Your task to perform on an android device: turn on airplane mode Image 0: 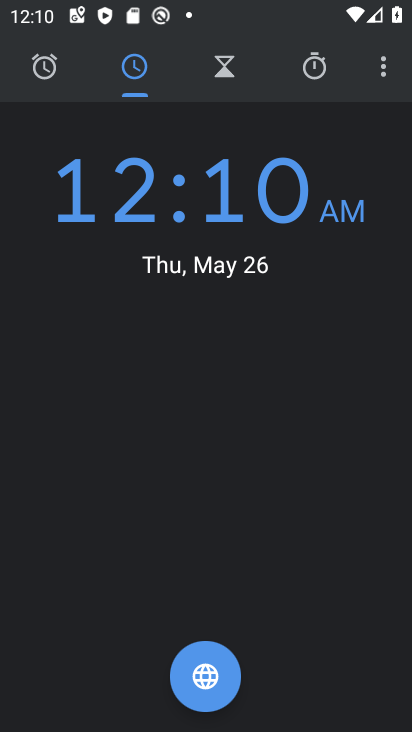
Step 0: drag from (222, 521) to (280, 224)
Your task to perform on an android device: turn on airplane mode Image 1: 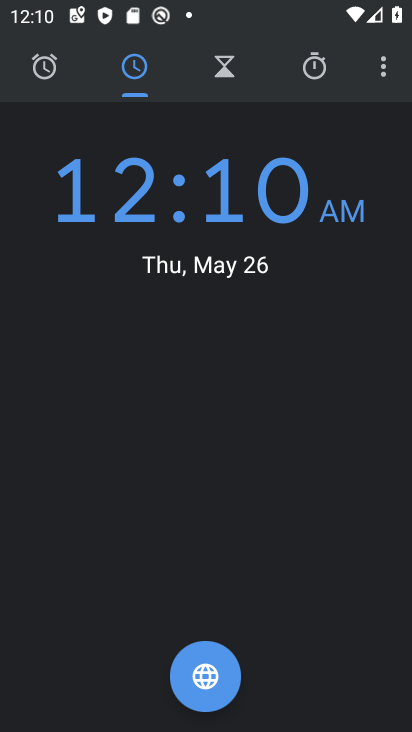
Step 1: press home button
Your task to perform on an android device: turn on airplane mode Image 2: 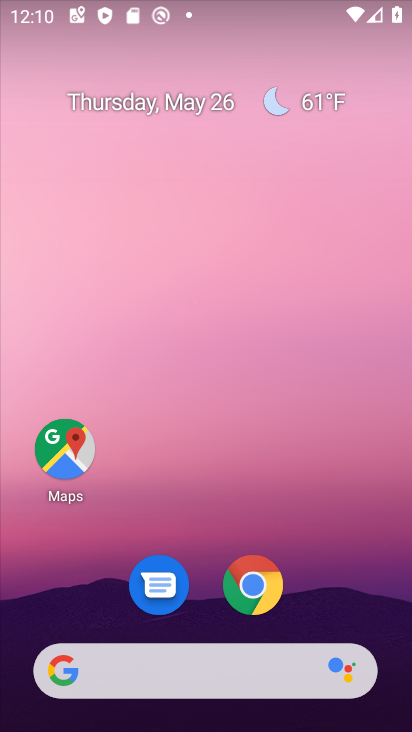
Step 2: drag from (274, 480) to (357, 68)
Your task to perform on an android device: turn on airplane mode Image 3: 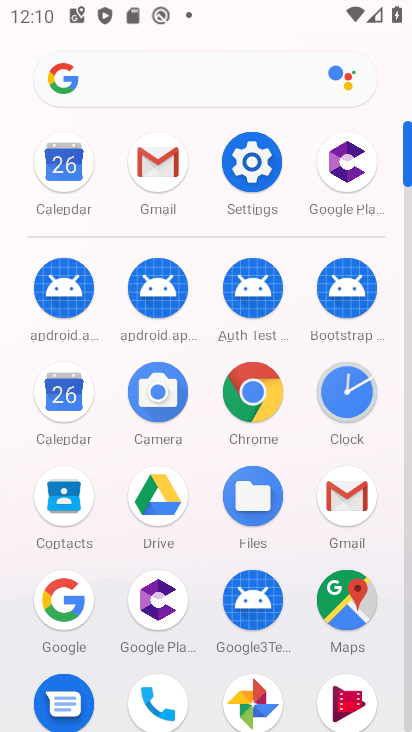
Step 3: click (256, 169)
Your task to perform on an android device: turn on airplane mode Image 4: 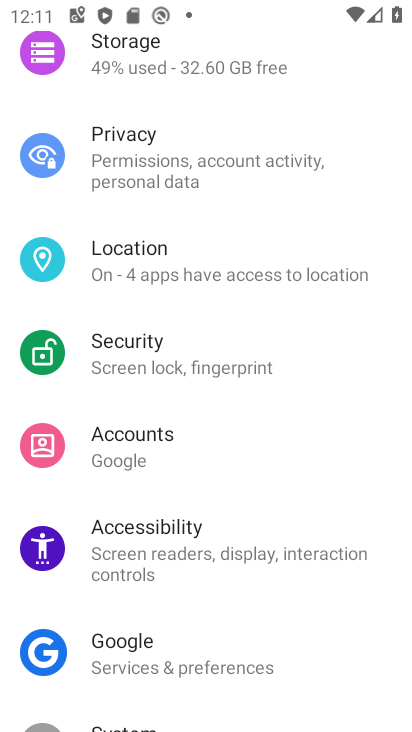
Step 4: drag from (237, 304) to (261, 561)
Your task to perform on an android device: turn on airplane mode Image 5: 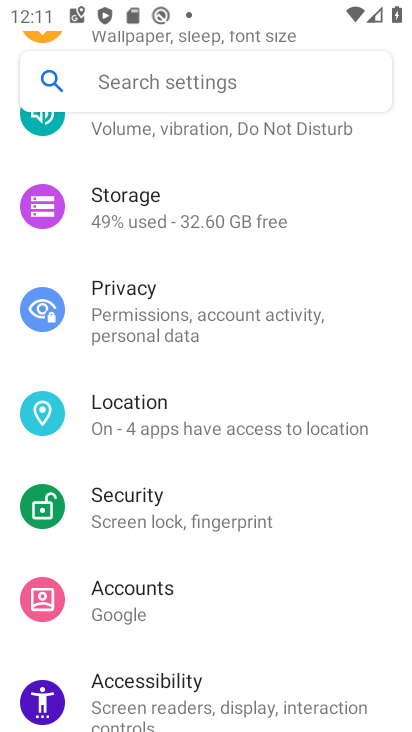
Step 5: drag from (224, 287) to (263, 657)
Your task to perform on an android device: turn on airplane mode Image 6: 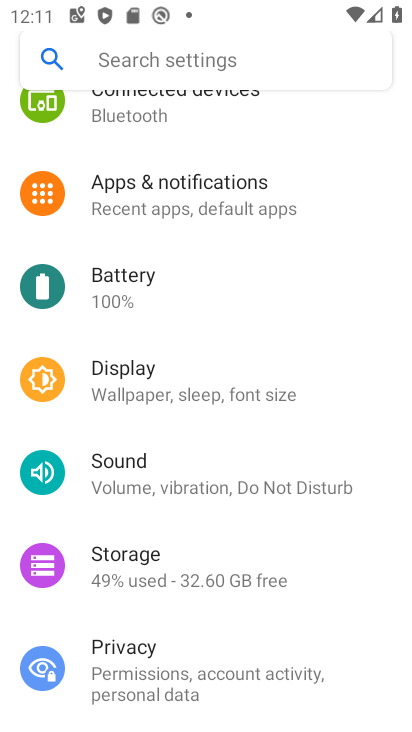
Step 6: drag from (236, 263) to (255, 605)
Your task to perform on an android device: turn on airplane mode Image 7: 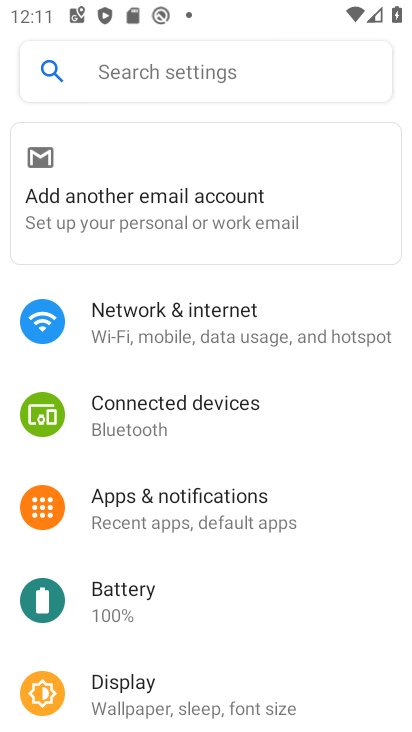
Step 7: click (239, 337)
Your task to perform on an android device: turn on airplane mode Image 8: 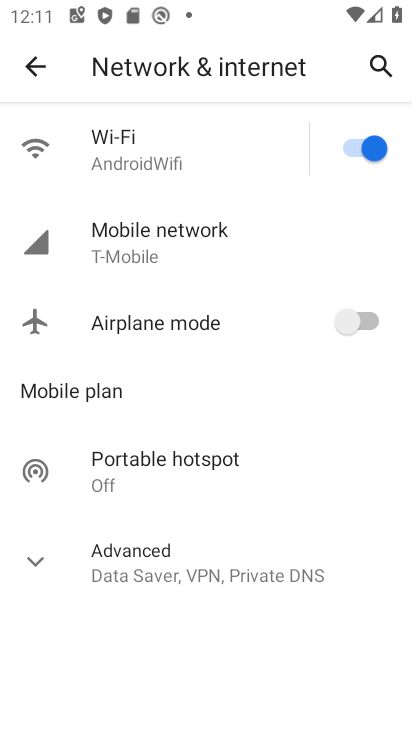
Step 8: click (342, 316)
Your task to perform on an android device: turn on airplane mode Image 9: 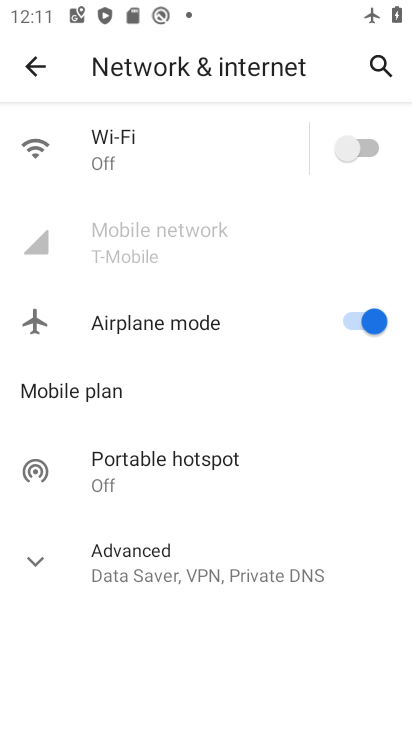
Step 9: task complete